Your task to perform on an android device: change your default location settings in chrome Image 0: 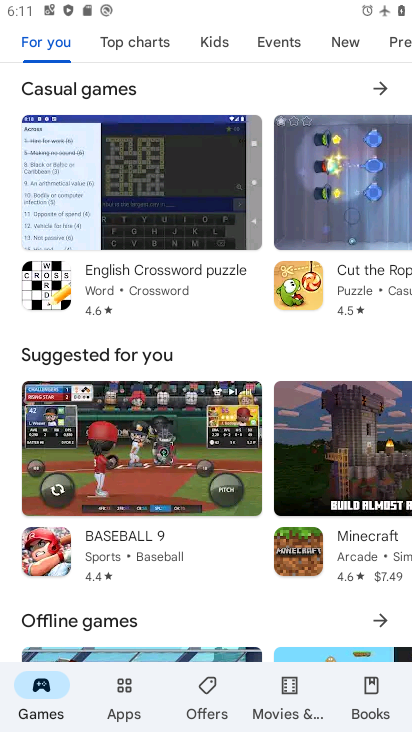
Step 0: press home button
Your task to perform on an android device: change your default location settings in chrome Image 1: 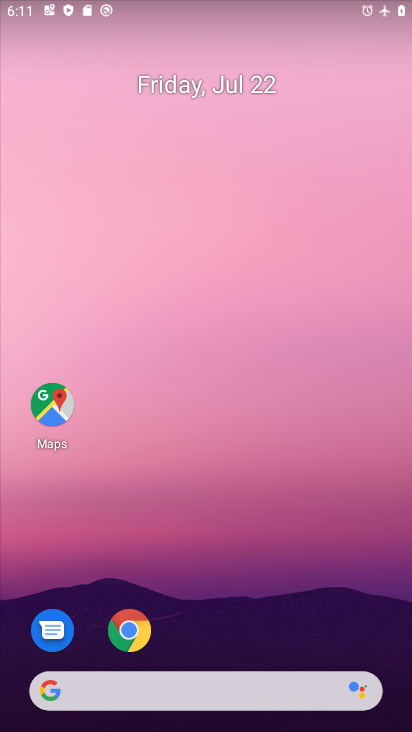
Step 1: drag from (107, 698) to (145, 40)
Your task to perform on an android device: change your default location settings in chrome Image 2: 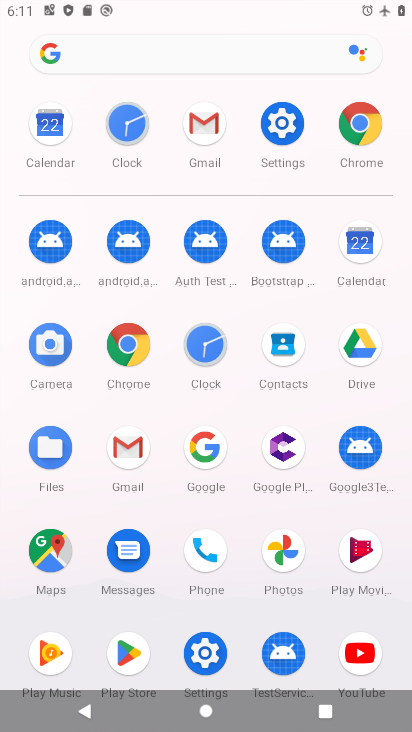
Step 2: click (136, 343)
Your task to perform on an android device: change your default location settings in chrome Image 3: 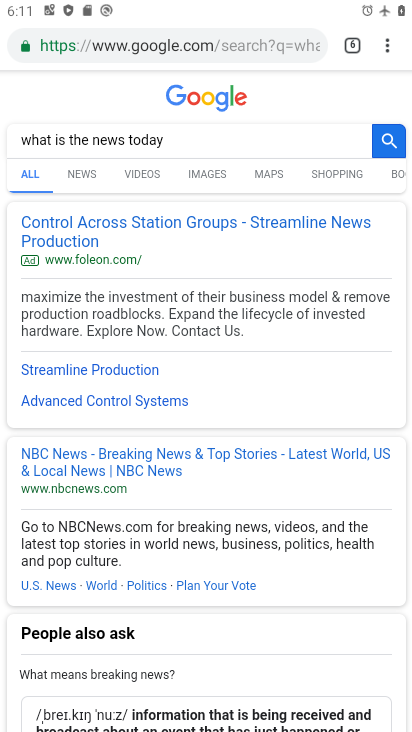
Step 3: drag from (397, 47) to (291, 505)
Your task to perform on an android device: change your default location settings in chrome Image 4: 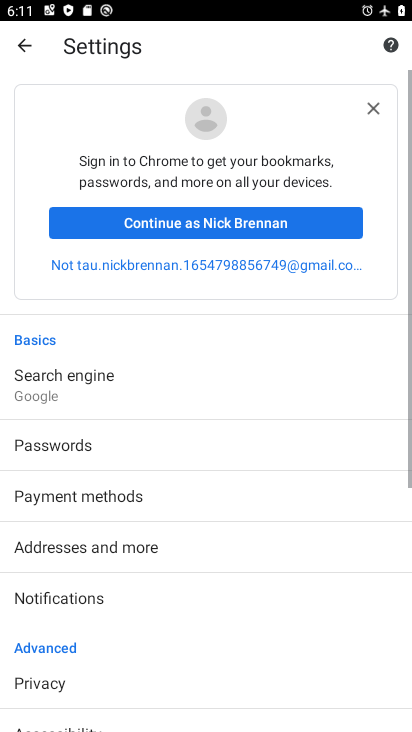
Step 4: drag from (156, 645) to (134, 215)
Your task to perform on an android device: change your default location settings in chrome Image 5: 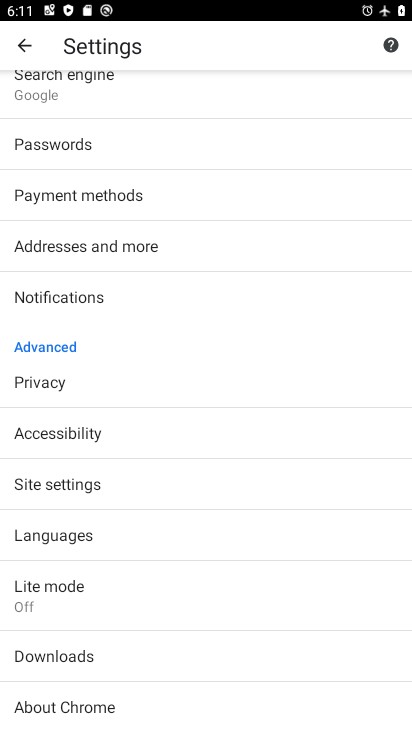
Step 5: click (83, 503)
Your task to perform on an android device: change your default location settings in chrome Image 6: 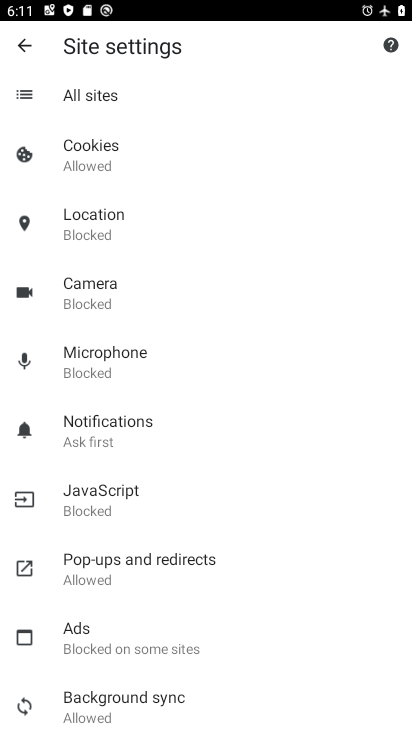
Step 6: click (126, 220)
Your task to perform on an android device: change your default location settings in chrome Image 7: 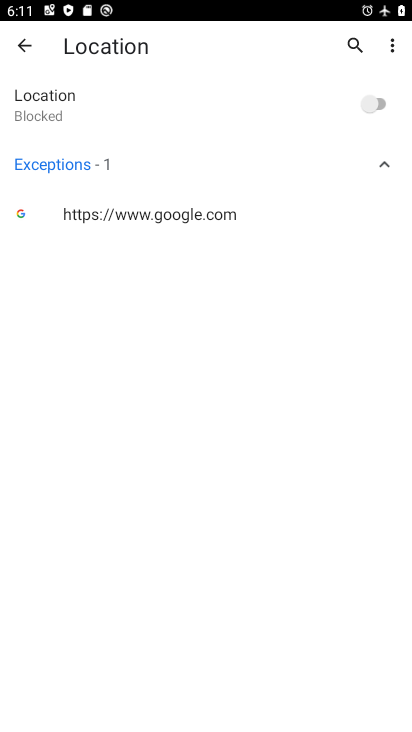
Step 7: task complete